Your task to perform on an android device: Go to Maps Image 0: 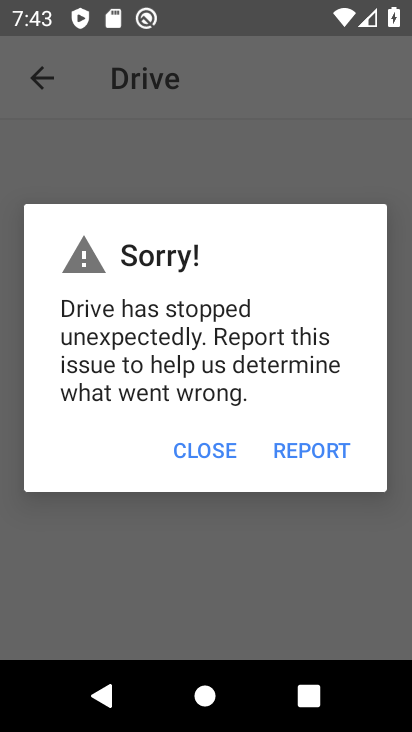
Step 0: press home button
Your task to perform on an android device: Go to Maps Image 1: 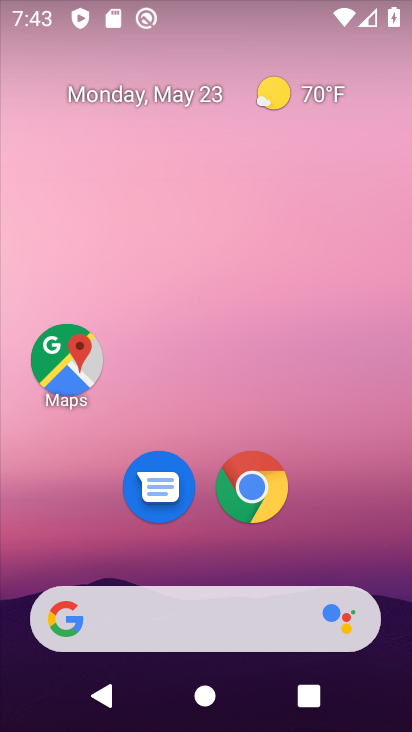
Step 1: click (57, 349)
Your task to perform on an android device: Go to Maps Image 2: 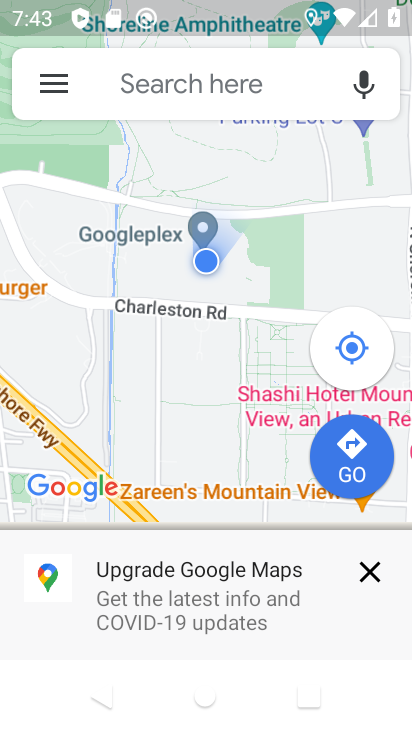
Step 2: task complete